Your task to perform on an android device: open device folders in google photos Image 0: 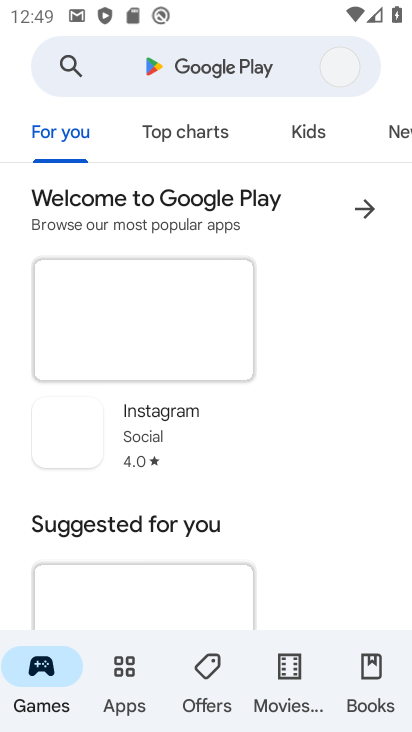
Step 0: press home button
Your task to perform on an android device: open device folders in google photos Image 1: 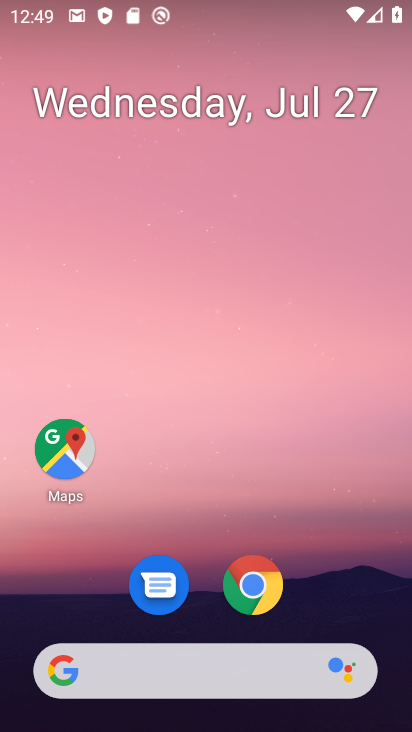
Step 1: drag from (160, 656) to (227, 126)
Your task to perform on an android device: open device folders in google photos Image 2: 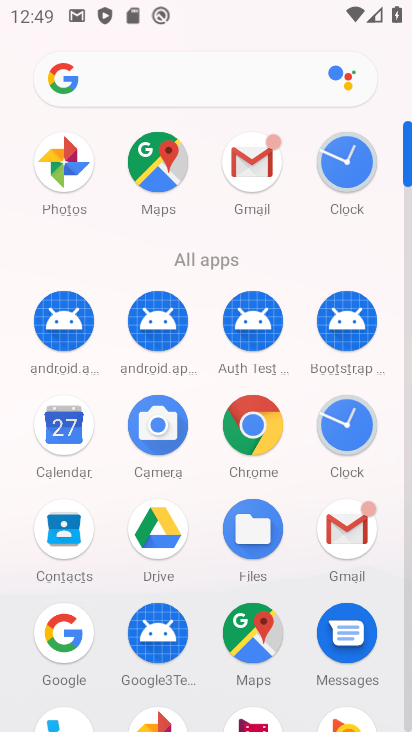
Step 2: drag from (225, 514) to (248, 214)
Your task to perform on an android device: open device folders in google photos Image 3: 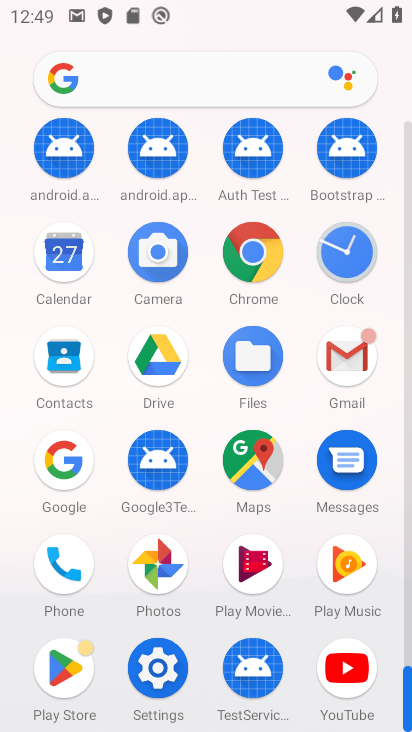
Step 3: click (163, 571)
Your task to perform on an android device: open device folders in google photos Image 4: 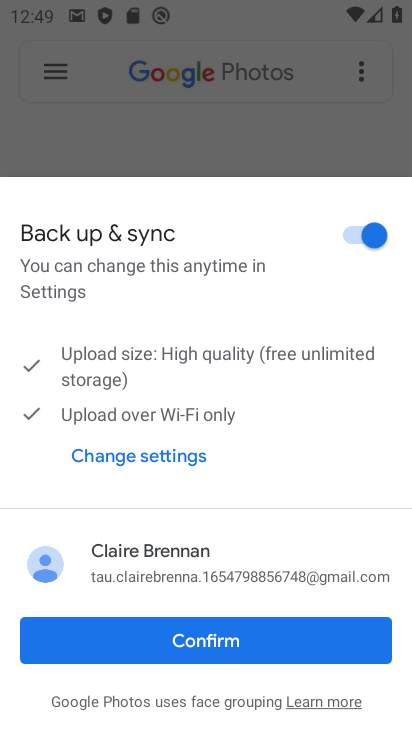
Step 4: click (231, 645)
Your task to perform on an android device: open device folders in google photos Image 5: 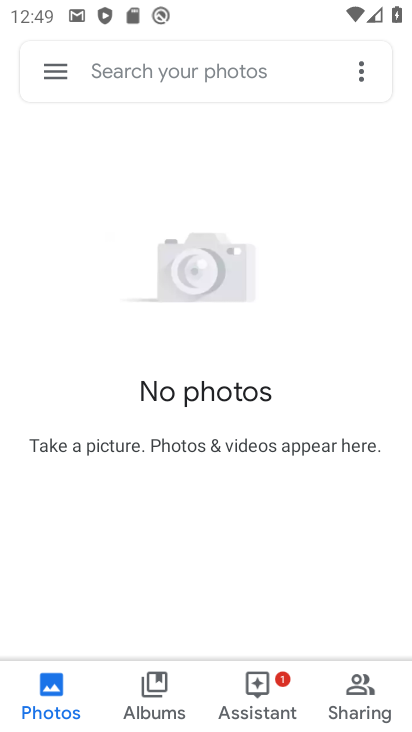
Step 5: click (61, 75)
Your task to perform on an android device: open device folders in google photos Image 6: 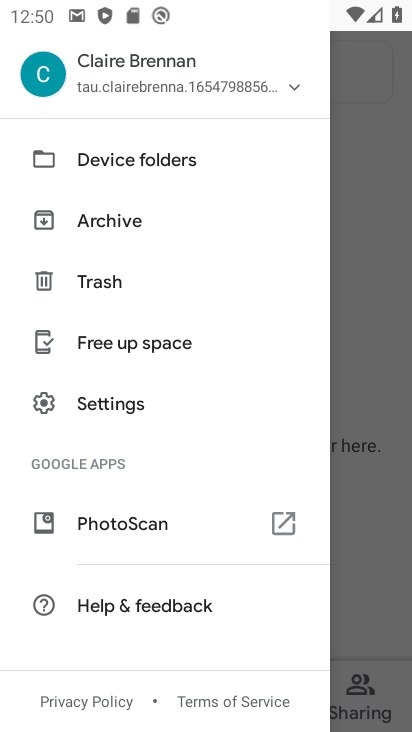
Step 6: click (131, 163)
Your task to perform on an android device: open device folders in google photos Image 7: 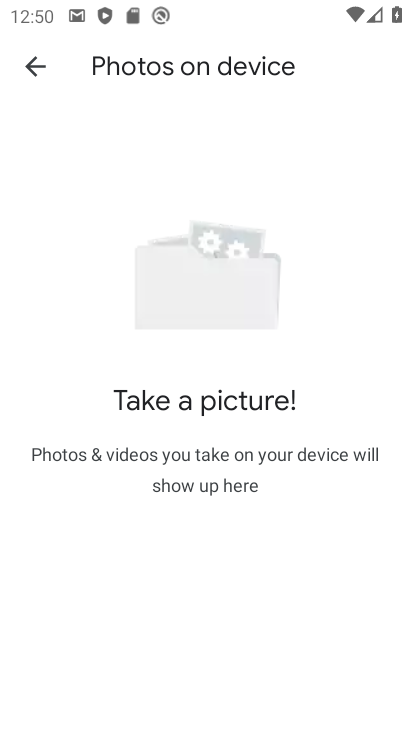
Step 7: task complete